Your task to perform on an android device: Open location settings Image 0: 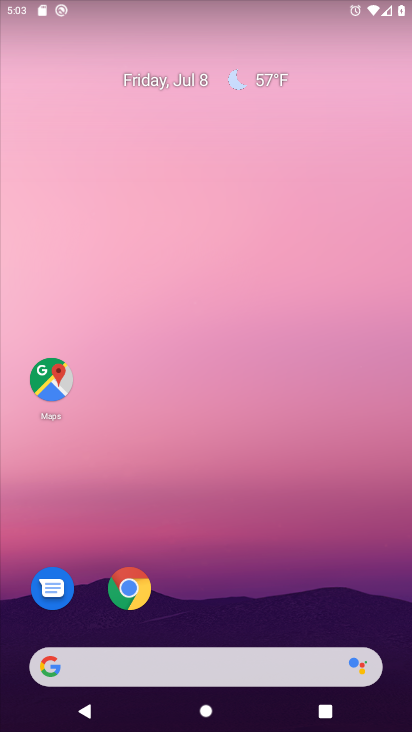
Step 0: click (194, 186)
Your task to perform on an android device: Open location settings Image 1: 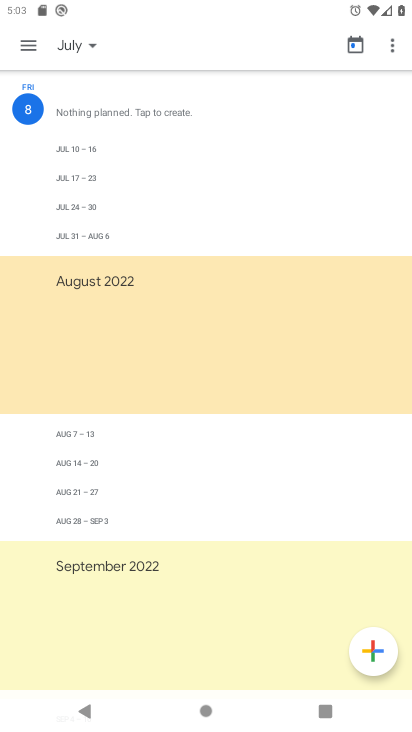
Step 1: press back button
Your task to perform on an android device: Open location settings Image 2: 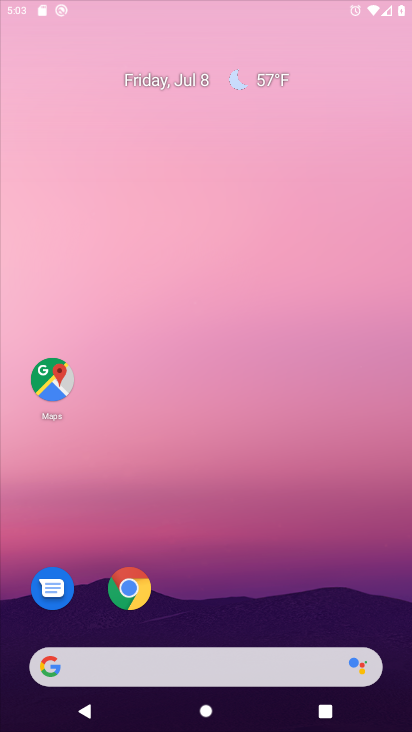
Step 2: drag from (257, 474) to (238, 10)
Your task to perform on an android device: Open location settings Image 3: 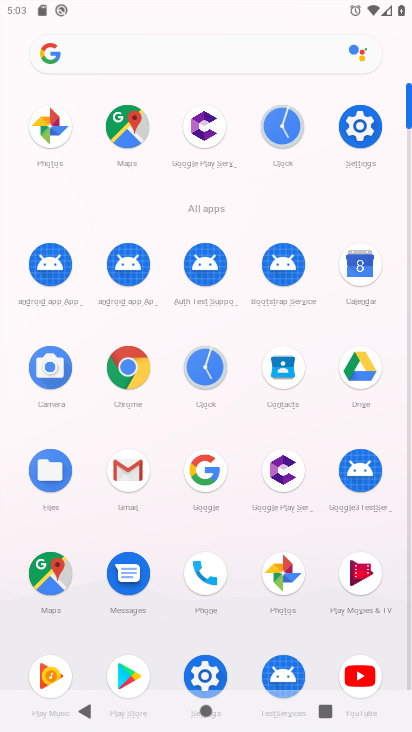
Step 3: click (202, 673)
Your task to perform on an android device: Open location settings Image 4: 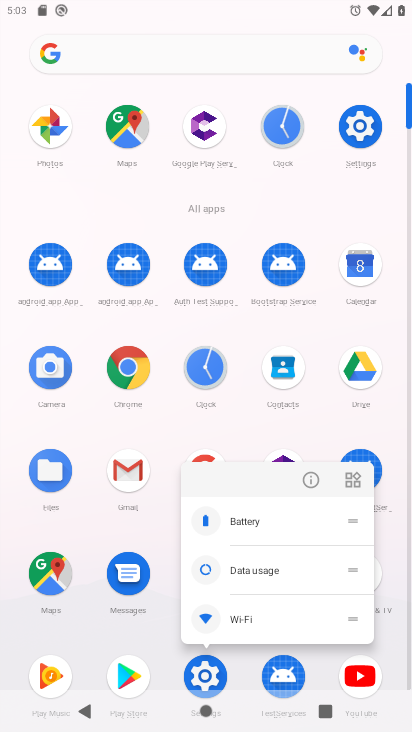
Step 4: click (207, 673)
Your task to perform on an android device: Open location settings Image 5: 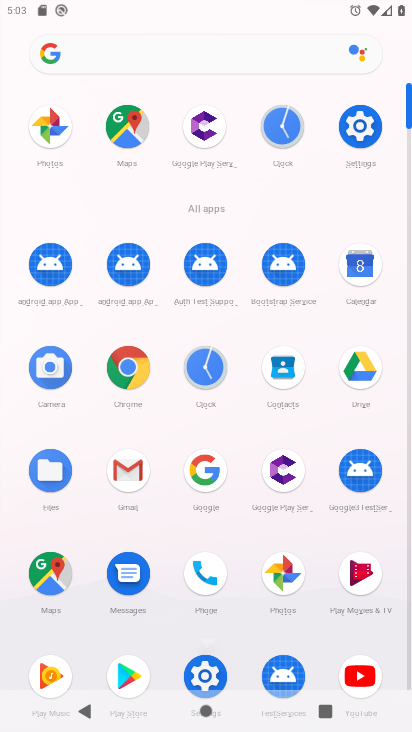
Step 5: click (207, 673)
Your task to perform on an android device: Open location settings Image 6: 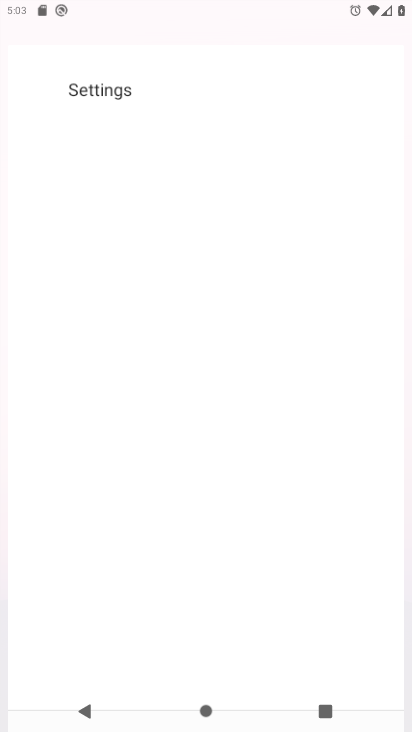
Step 6: click (208, 673)
Your task to perform on an android device: Open location settings Image 7: 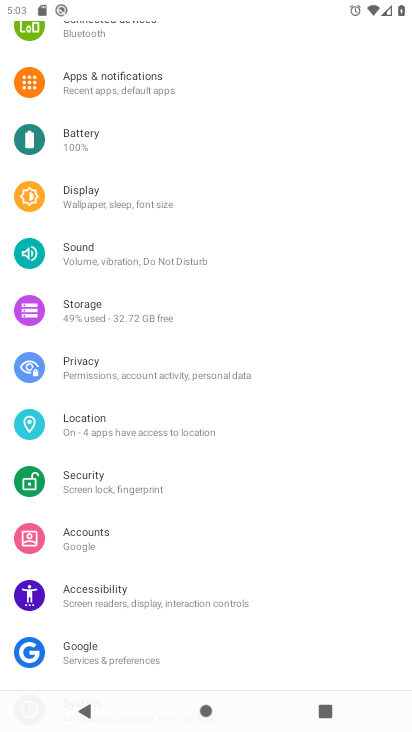
Step 7: click (208, 673)
Your task to perform on an android device: Open location settings Image 8: 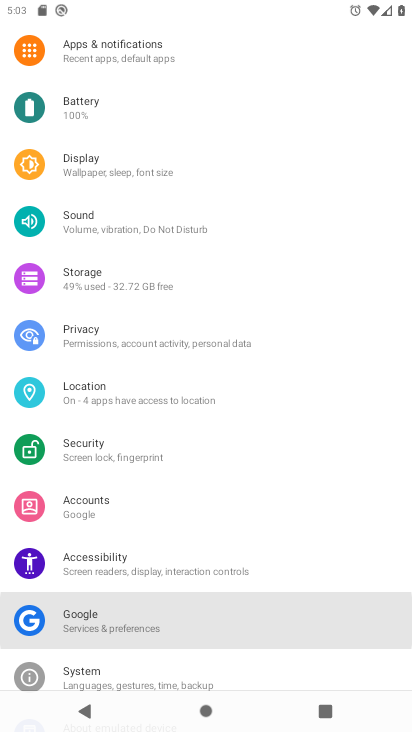
Step 8: click (208, 673)
Your task to perform on an android device: Open location settings Image 9: 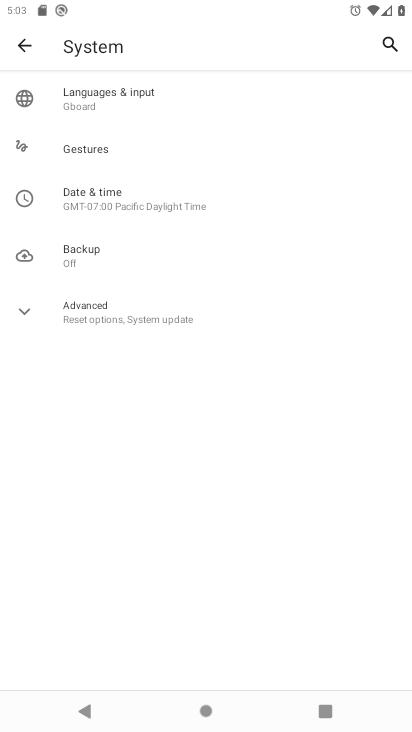
Step 9: click (26, 48)
Your task to perform on an android device: Open location settings Image 10: 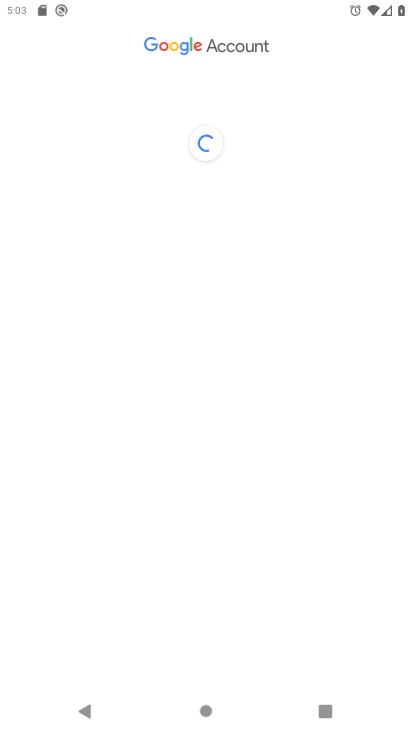
Step 10: click (17, 32)
Your task to perform on an android device: Open location settings Image 11: 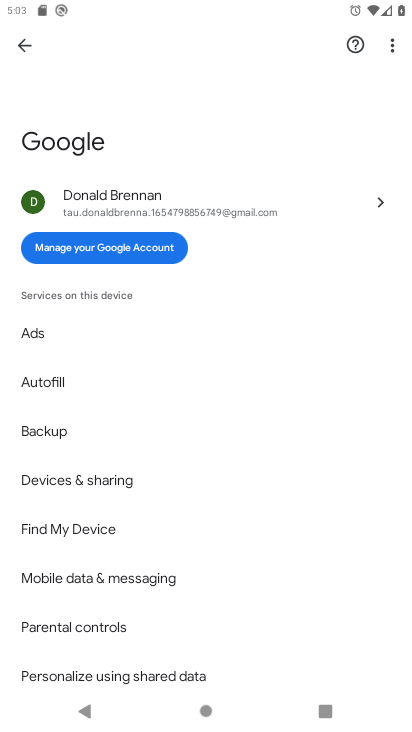
Step 11: click (18, 39)
Your task to perform on an android device: Open location settings Image 12: 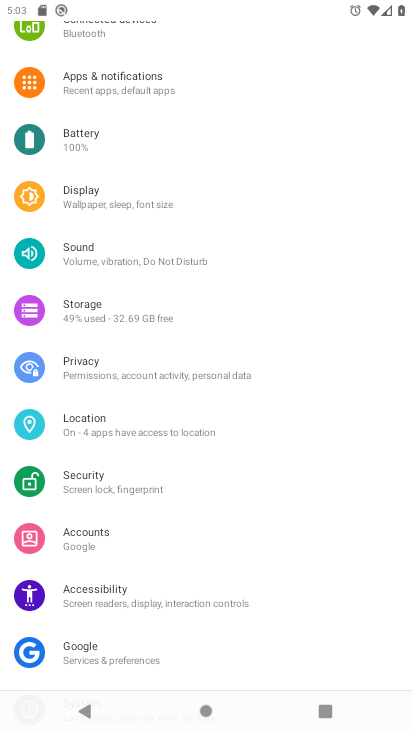
Step 12: click (86, 431)
Your task to perform on an android device: Open location settings Image 13: 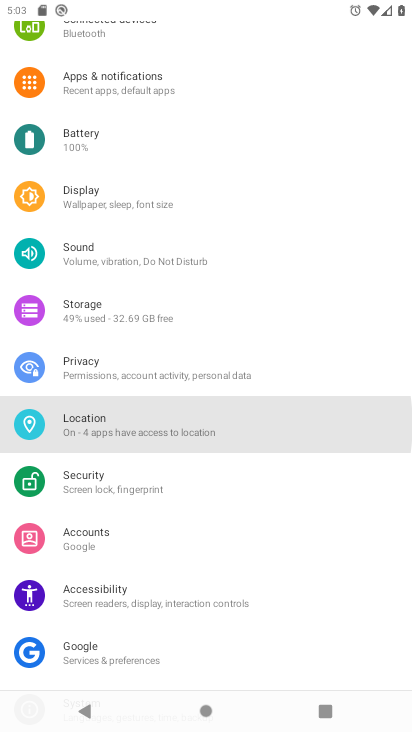
Step 13: click (90, 427)
Your task to perform on an android device: Open location settings Image 14: 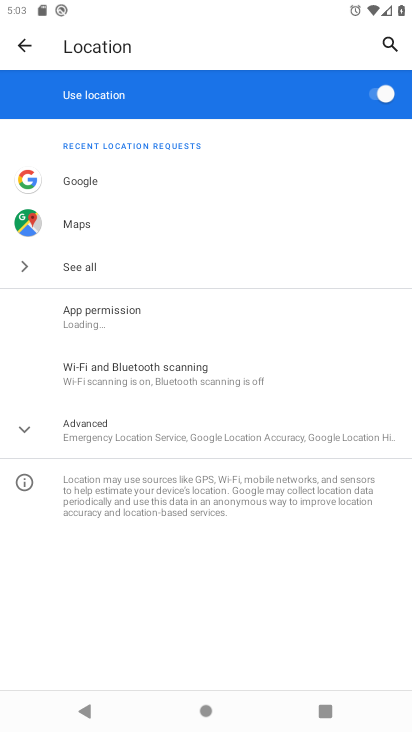
Step 14: task complete